Your task to perform on an android device: Open Google Image 0: 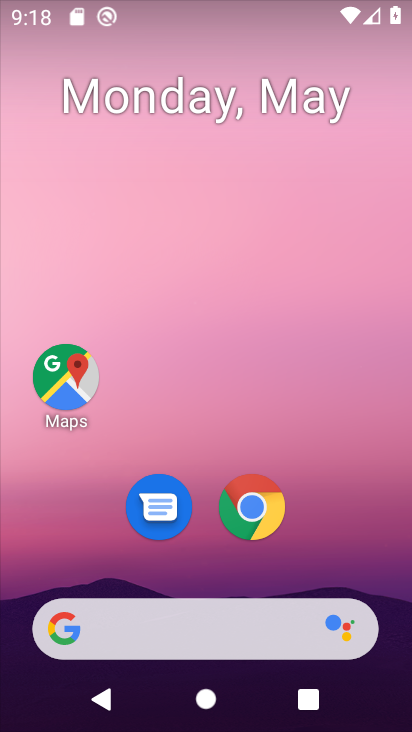
Step 0: drag from (333, 524) to (268, 84)
Your task to perform on an android device: Open Google Image 1: 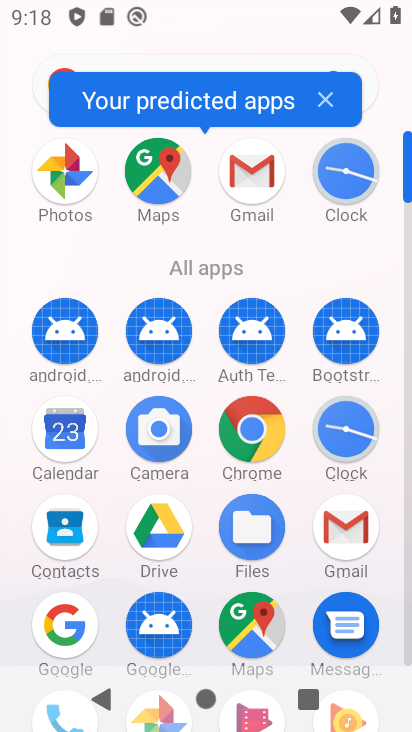
Step 1: click (59, 625)
Your task to perform on an android device: Open Google Image 2: 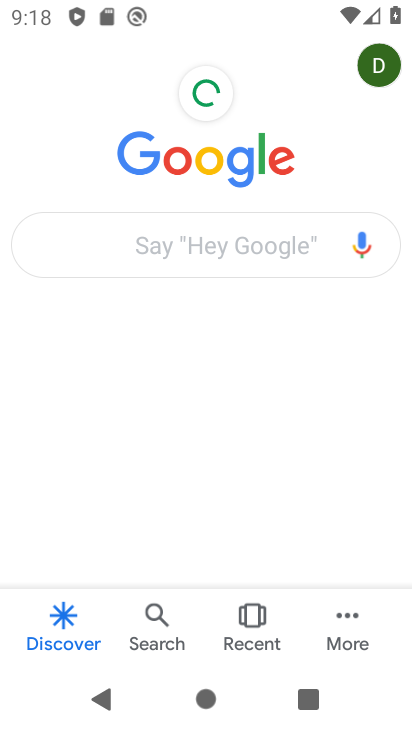
Step 2: task complete